Your task to perform on an android device: Search for pizza restaurants on Maps Image 0: 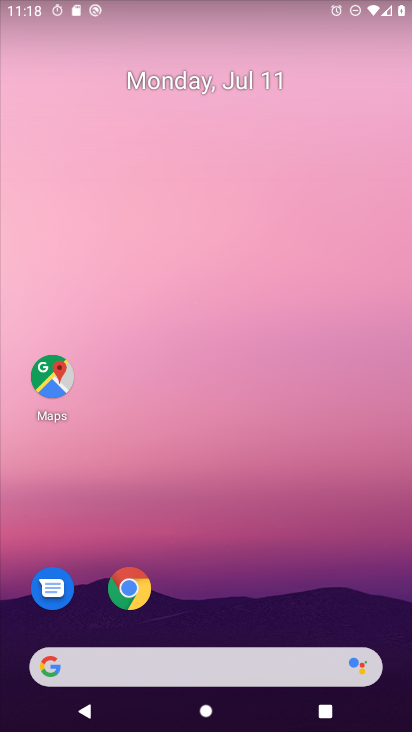
Step 0: click (46, 358)
Your task to perform on an android device: Search for pizza restaurants on Maps Image 1: 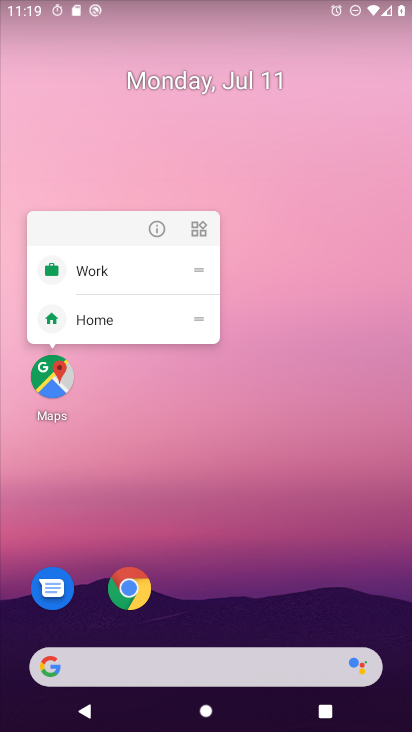
Step 1: click (57, 366)
Your task to perform on an android device: Search for pizza restaurants on Maps Image 2: 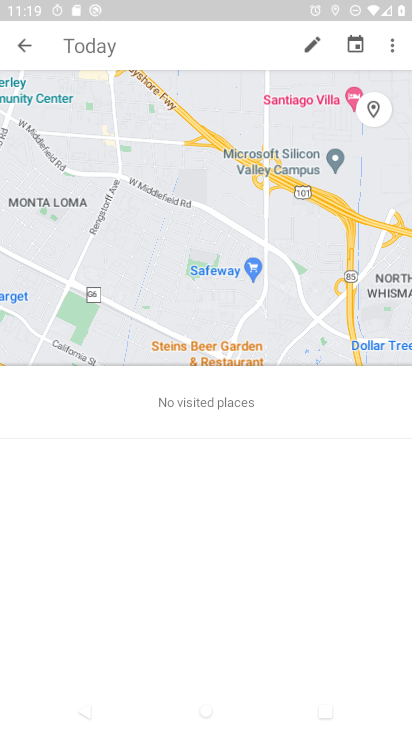
Step 2: click (17, 40)
Your task to perform on an android device: Search for pizza restaurants on Maps Image 3: 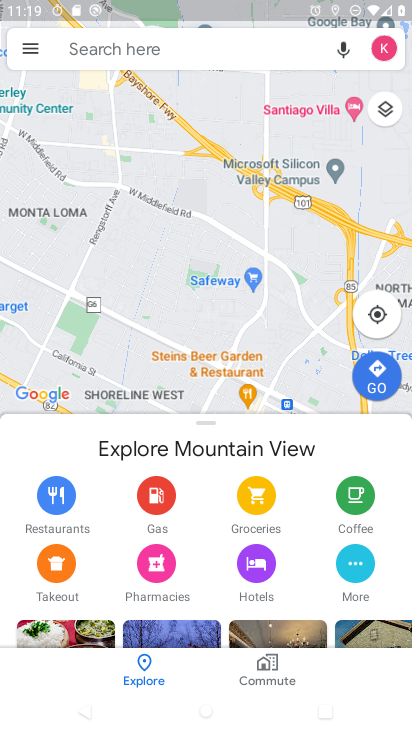
Step 3: click (89, 49)
Your task to perform on an android device: Search for pizza restaurants on Maps Image 4: 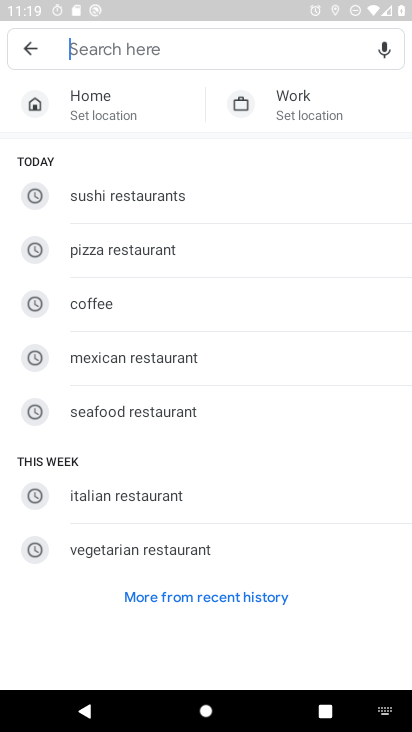
Step 4: click (114, 246)
Your task to perform on an android device: Search for pizza restaurants on Maps Image 5: 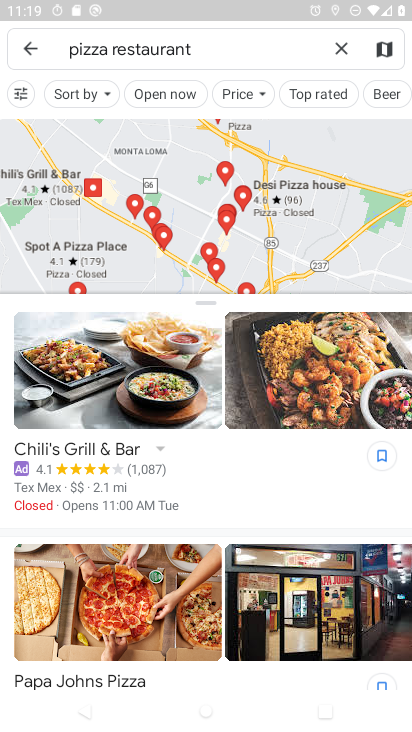
Step 5: task complete